Your task to perform on an android device: check out phone information Image 0: 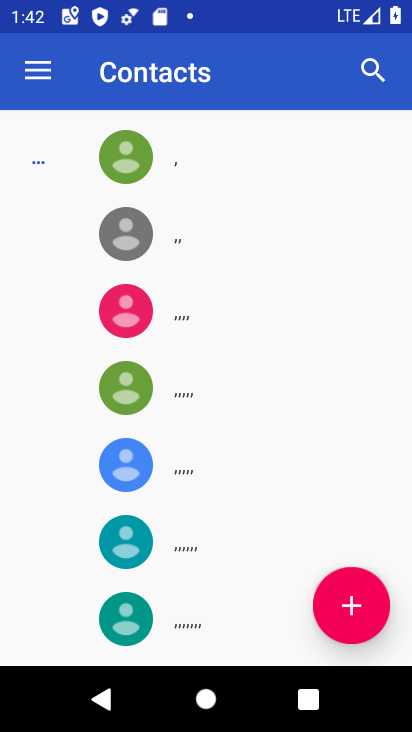
Step 0: press home button
Your task to perform on an android device: check out phone information Image 1: 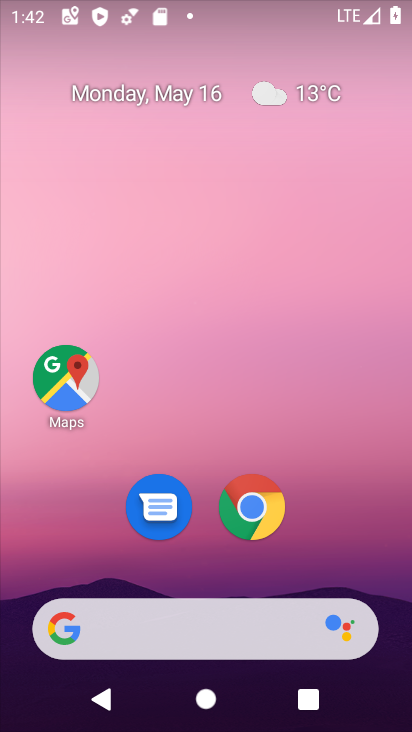
Step 1: drag from (278, 307) to (238, 50)
Your task to perform on an android device: check out phone information Image 2: 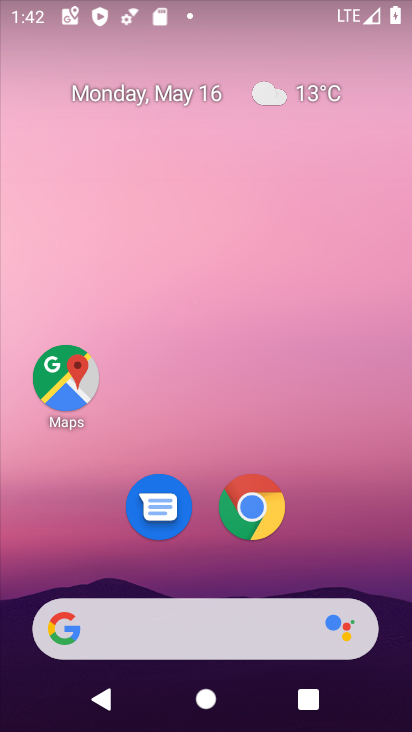
Step 2: drag from (308, 548) to (247, 53)
Your task to perform on an android device: check out phone information Image 3: 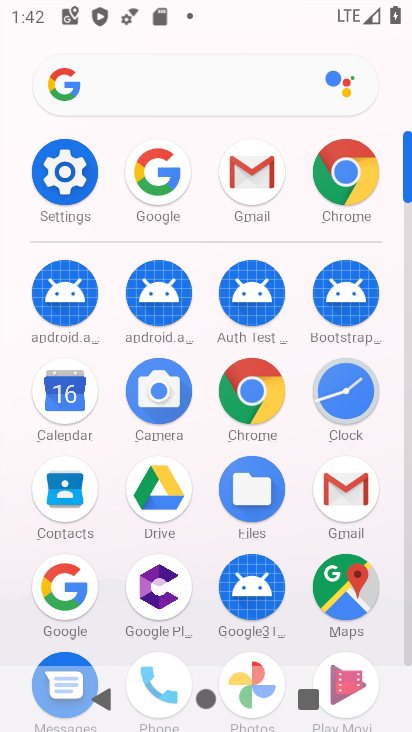
Step 3: click (77, 177)
Your task to perform on an android device: check out phone information Image 4: 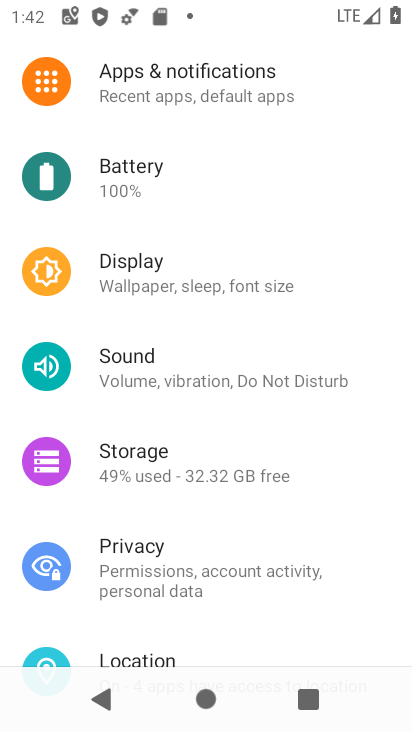
Step 4: drag from (247, 196) to (185, 577)
Your task to perform on an android device: check out phone information Image 5: 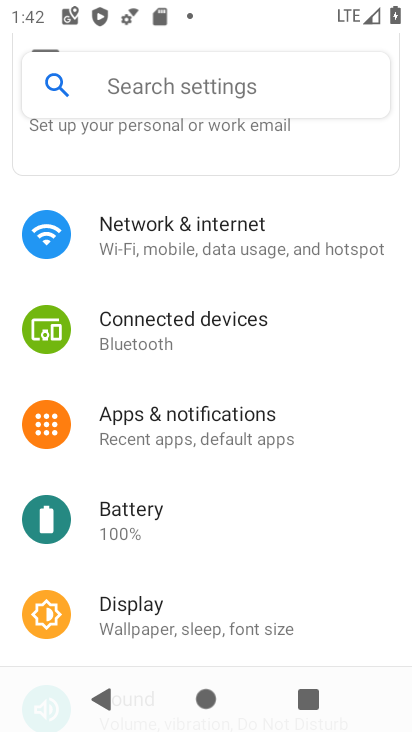
Step 5: drag from (194, 577) to (219, 295)
Your task to perform on an android device: check out phone information Image 6: 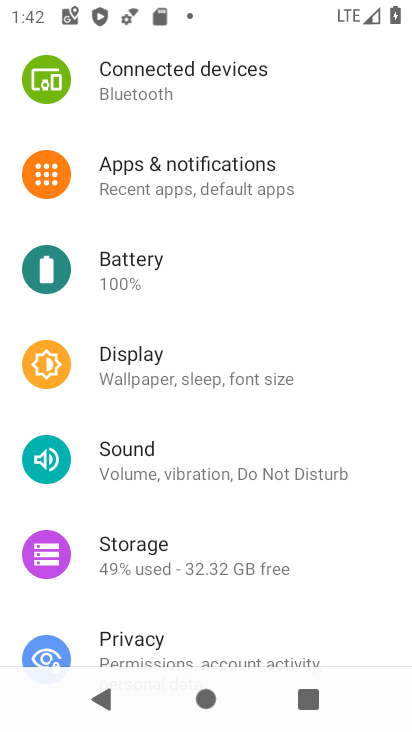
Step 6: drag from (220, 547) to (227, 110)
Your task to perform on an android device: check out phone information Image 7: 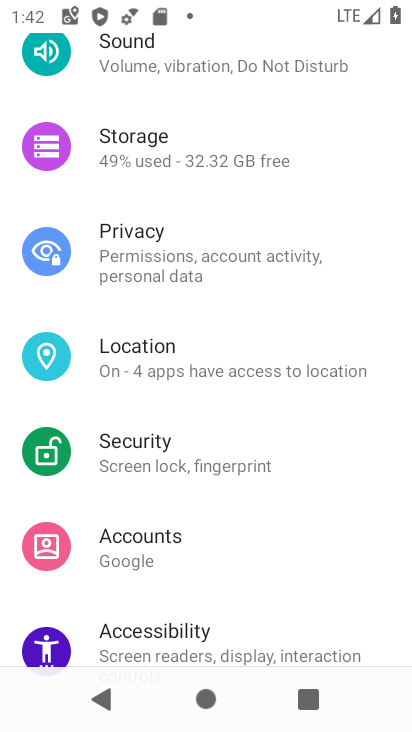
Step 7: drag from (205, 563) to (207, 166)
Your task to perform on an android device: check out phone information Image 8: 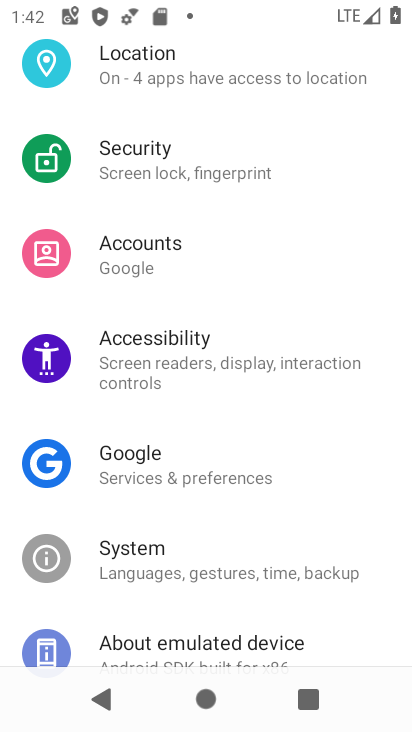
Step 8: drag from (214, 570) to (215, 214)
Your task to perform on an android device: check out phone information Image 9: 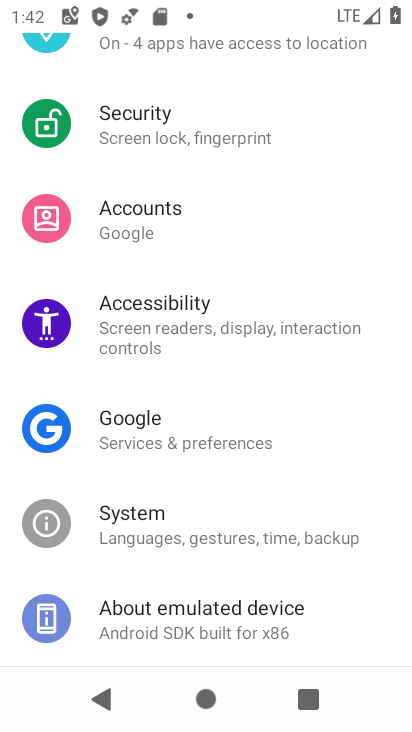
Step 9: click (192, 599)
Your task to perform on an android device: check out phone information Image 10: 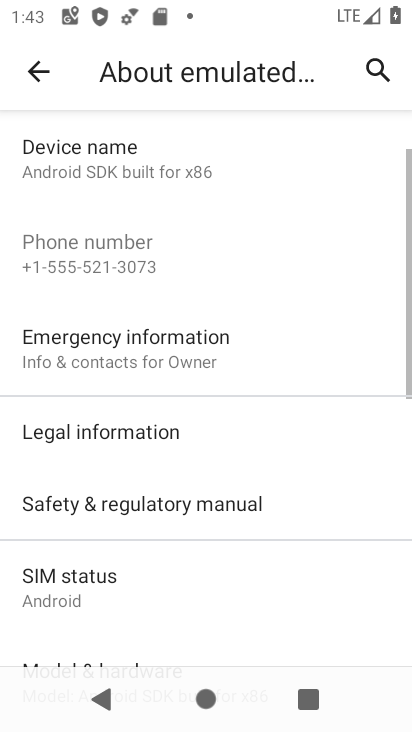
Step 10: task complete